Your task to perform on an android device: Go to Reddit.com Image 0: 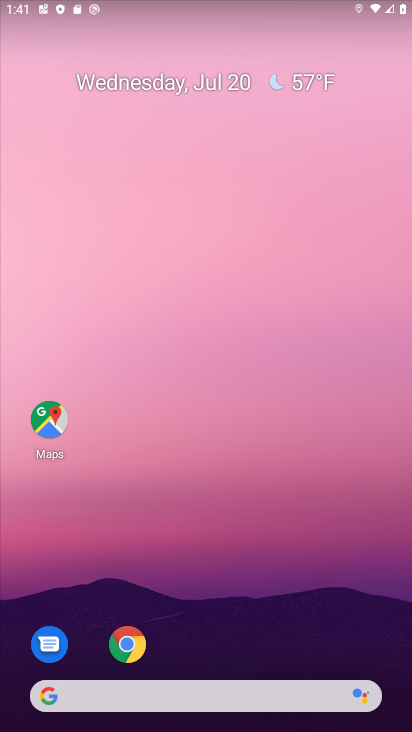
Step 0: press home button
Your task to perform on an android device: Go to Reddit.com Image 1: 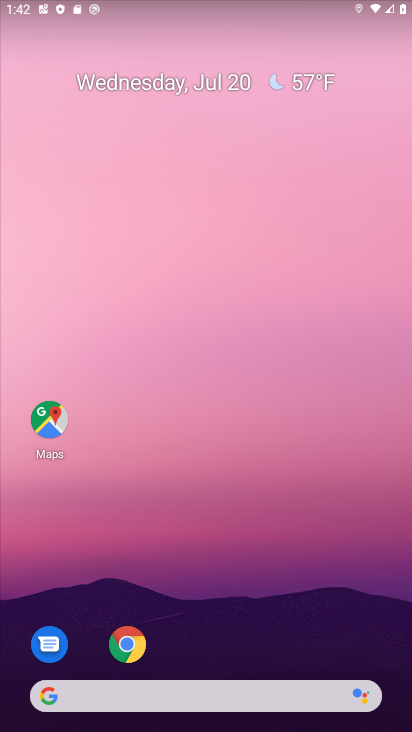
Step 1: click (35, 696)
Your task to perform on an android device: Go to Reddit.com Image 2: 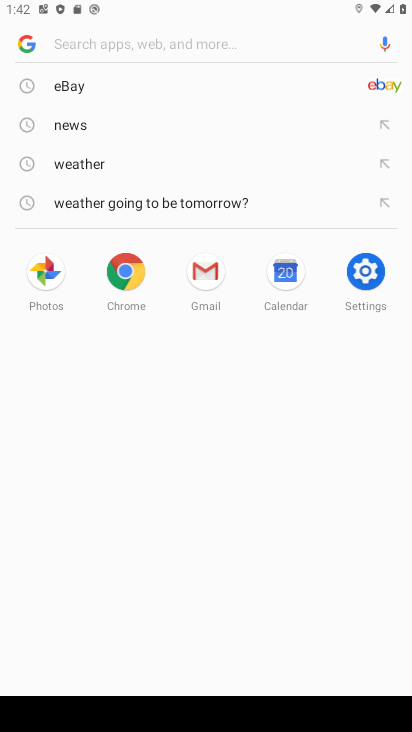
Step 2: type "Reddit.com"
Your task to perform on an android device: Go to Reddit.com Image 3: 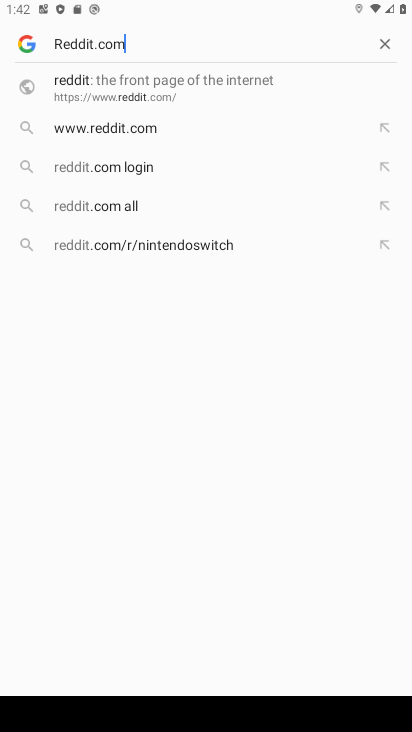
Step 3: press enter
Your task to perform on an android device: Go to Reddit.com Image 4: 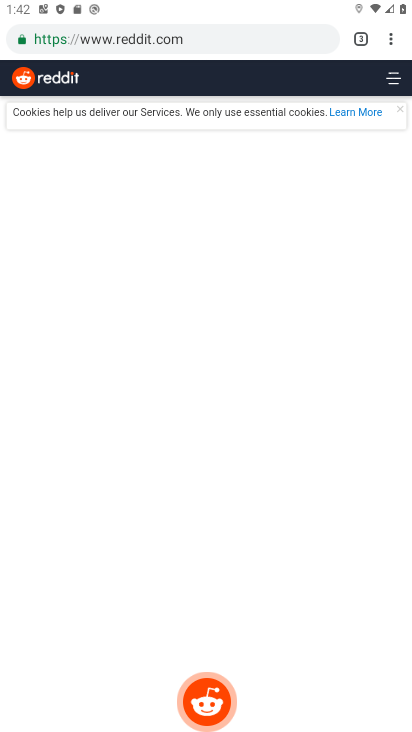
Step 4: task complete